Your task to perform on an android device: Open accessibility settings Image 0: 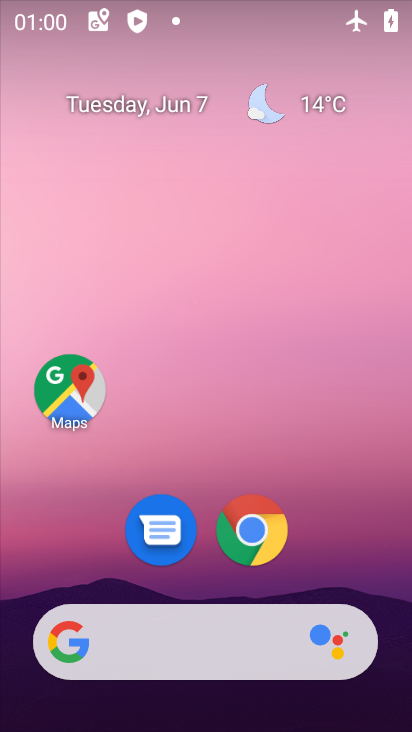
Step 0: drag from (276, 557) to (249, 200)
Your task to perform on an android device: Open accessibility settings Image 1: 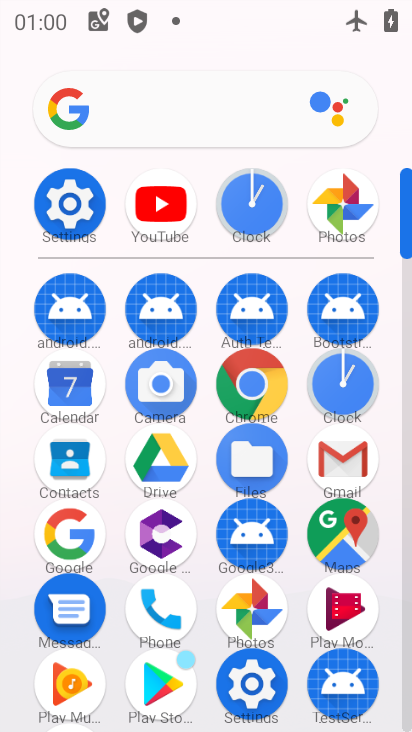
Step 1: click (66, 204)
Your task to perform on an android device: Open accessibility settings Image 2: 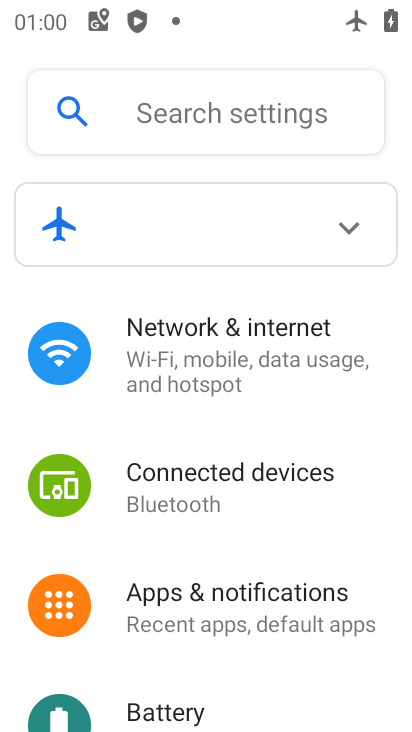
Step 2: drag from (171, 661) to (207, 328)
Your task to perform on an android device: Open accessibility settings Image 3: 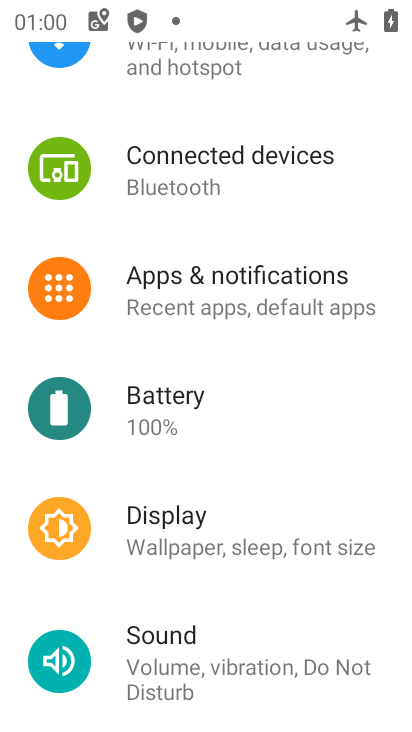
Step 3: drag from (206, 606) to (213, 311)
Your task to perform on an android device: Open accessibility settings Image 4: 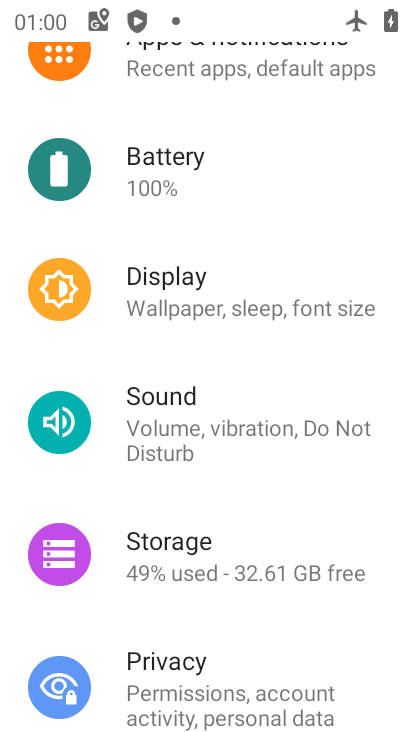
Step 4: drag from (180, 640) to (220, 225)
Your task to perform on an android device: Open accessibility settings Image 5: 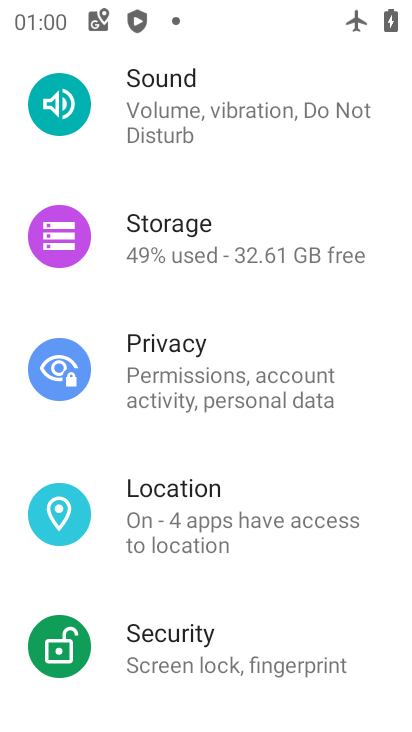
Step 5: drag from (184, 565) to (213, 228)
Your task to perform on an android device: Open accessibility settings Image 6: 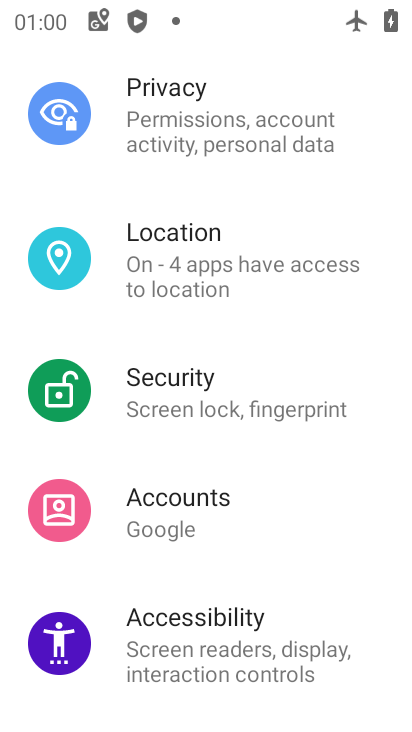
Step 6: click (166, 622)
Your task to perform on an android device: Open accessibility settings Image 7: 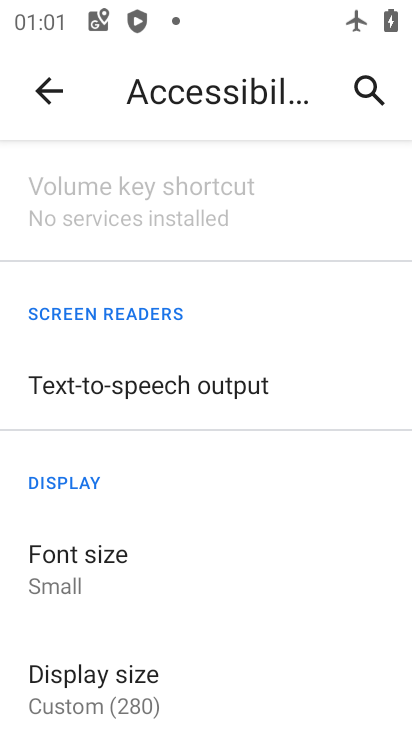
Step 7: task complete